Your task to perform on an android device: change the upload size in google photos Image 0: 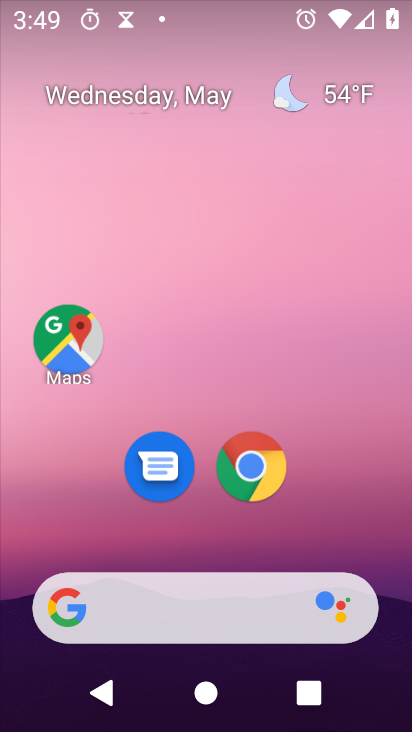
Step 0: drag from (370, 548) to (267, 124)
Your task to perform on an android device: change the upload size in google photos Image 1: 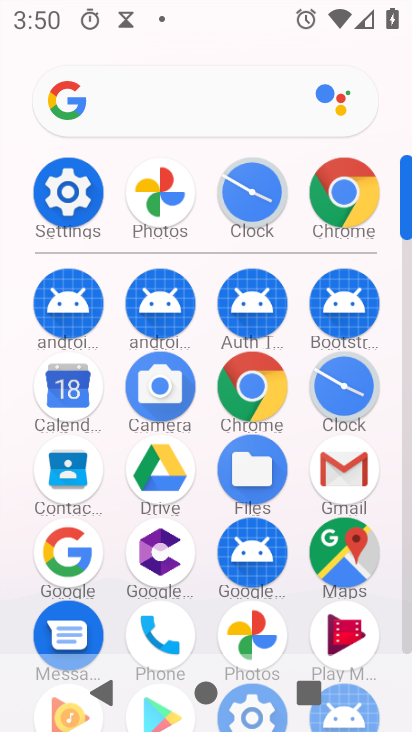
Step 1: click (228, 626)
Your task to perform on an android device: change the upload size in google photos Image 2: 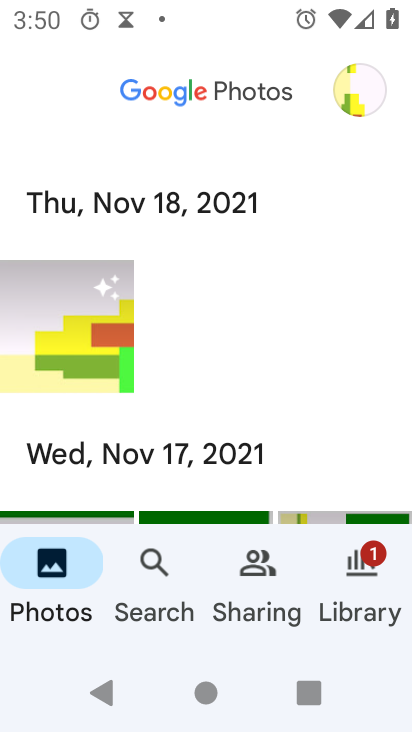
Step 2: click (361, 99)
Your task to perform on an android device: change the upload size in google photos Image 3: 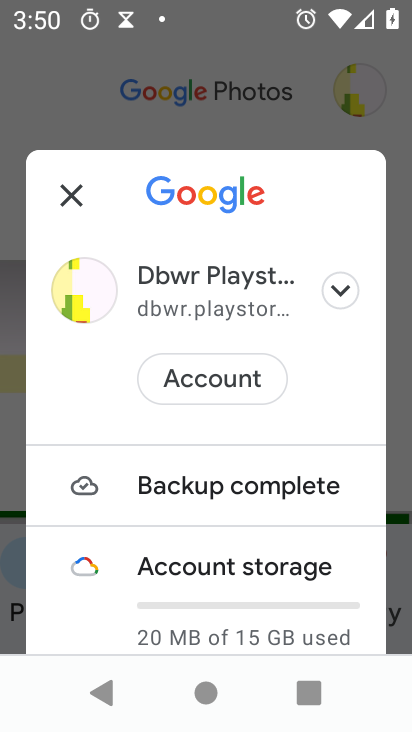
Step 3: drag from (307, 640) to (186, 243)
Your task to perform on an android device: change the upload size in google photos Image 4: 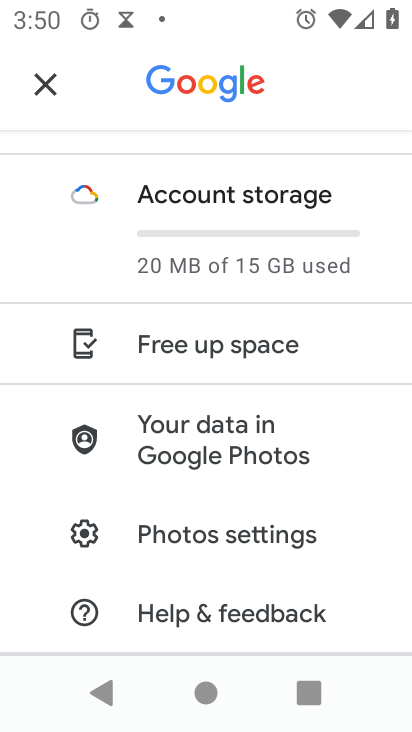
Step 4: click (249, 534)
Your task to perform on an android device: change the upload size in google photos Image 5: 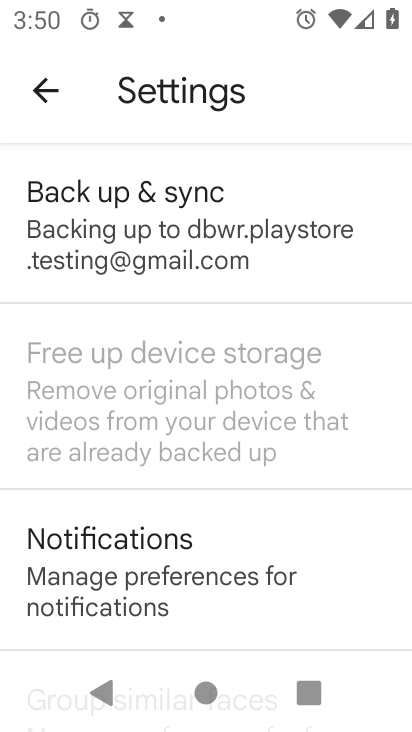
Step 5: click (259, 280)
Your task to perform on an android device: change the upload size in google photos Image 6: 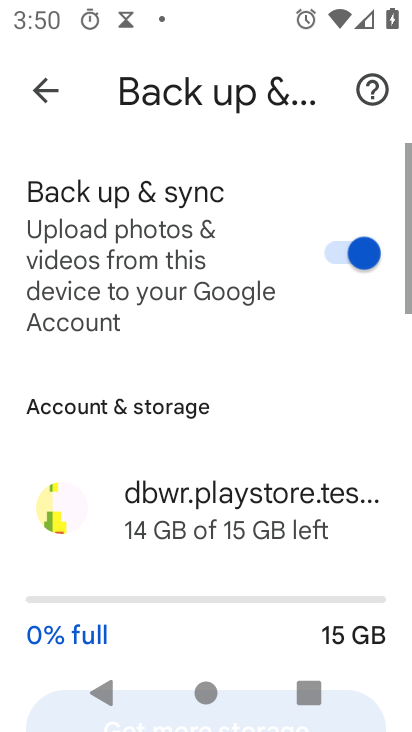
Step 6: drag from (276, 663) to (197, 159)
Your task to perform on an android device: change the upload size in google photos Image 7: 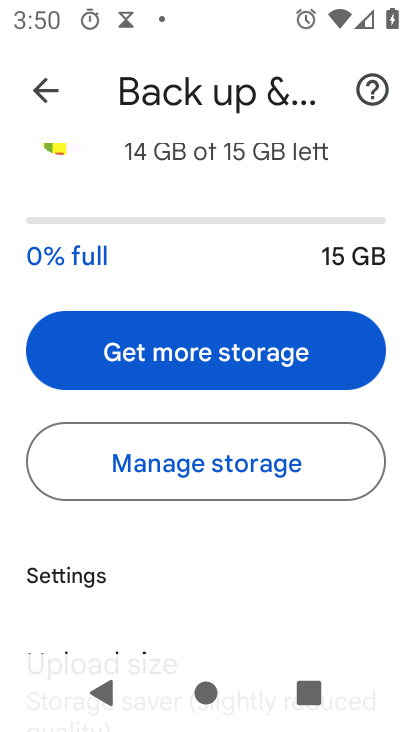
Step 7: drag from (270, 580) to (242, 12)
Your task to perform on an android device: change the upload size in google photos Image 8: 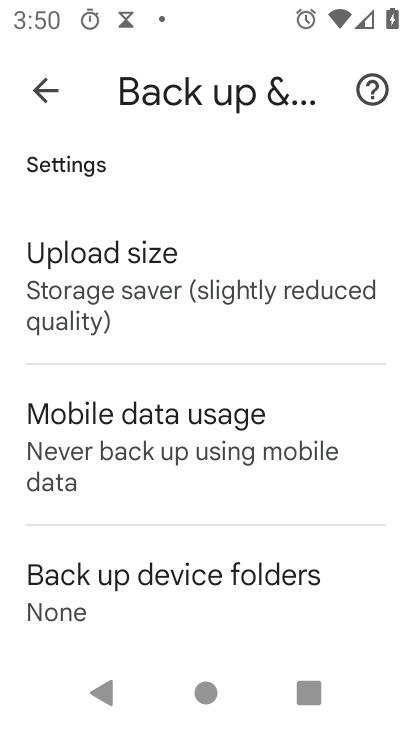
Step 8: click (273, 271)
Your task to perform on an android device: change the upload size in google photos Image 9: 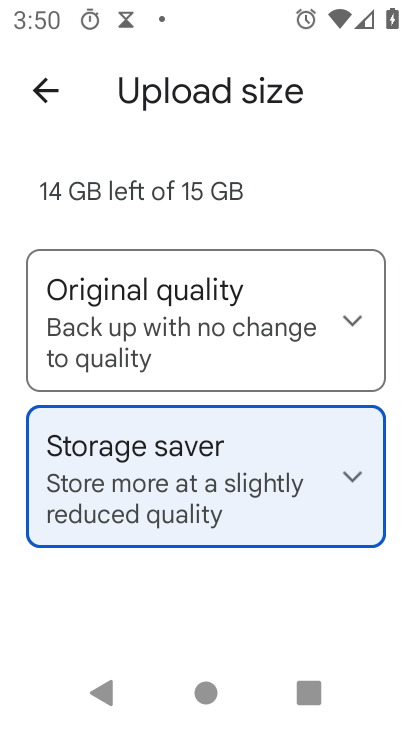
Step 9: click (275, 360)
Your task to perform on an android device: change the upload size in google photos Image 10: 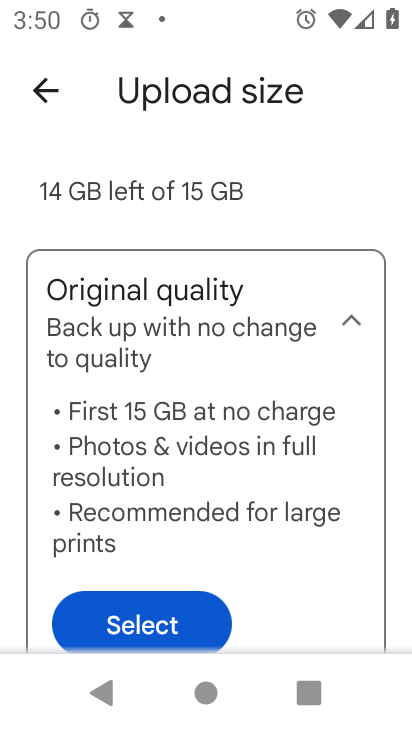
Step 10: click (188, 618)
Your task to perform on an android device: change the upload size in google photos Image 11: 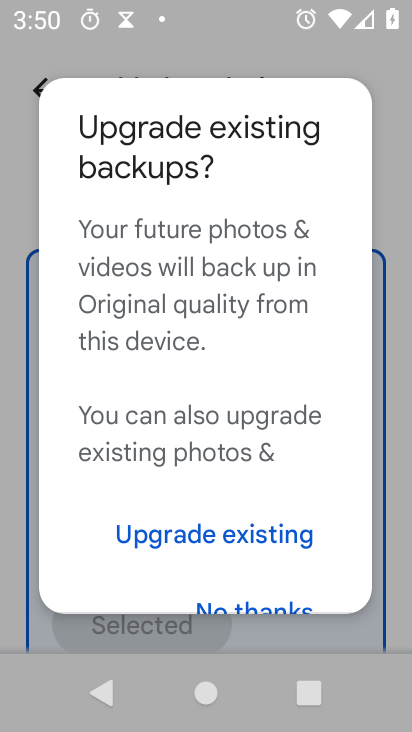
Step 11: task complete